Your task to perform on an android device: open wifi settings Image 0: 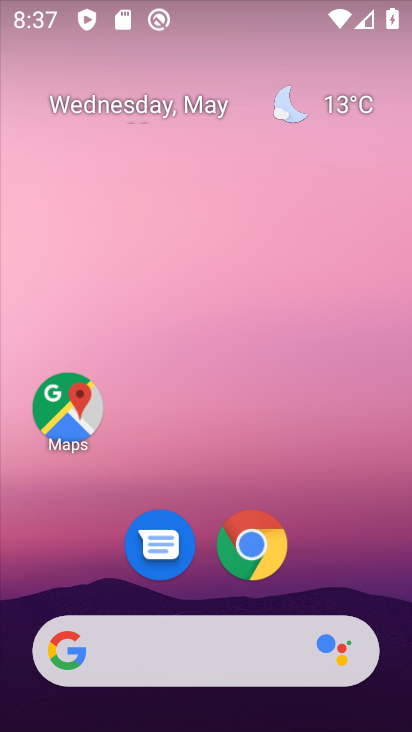
Step 0: drag from (309, 491) to (216, 23)
Your task to perform on an android device: open wifi settings Image 1: 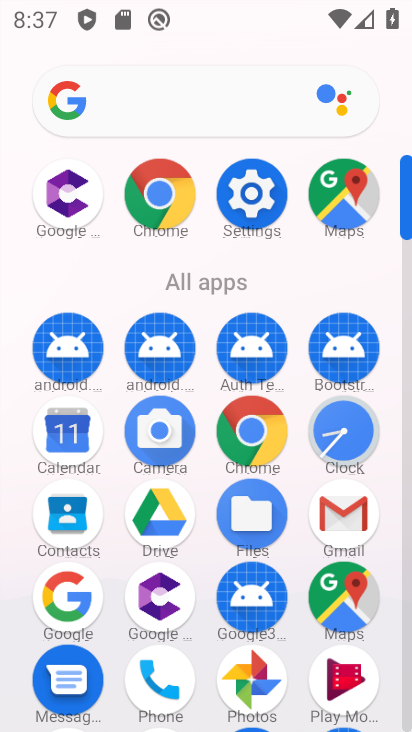
Step 1: drag from (3, 583) to (3, 314)
Your task to perform on an android device: open wifi settings Image 2: 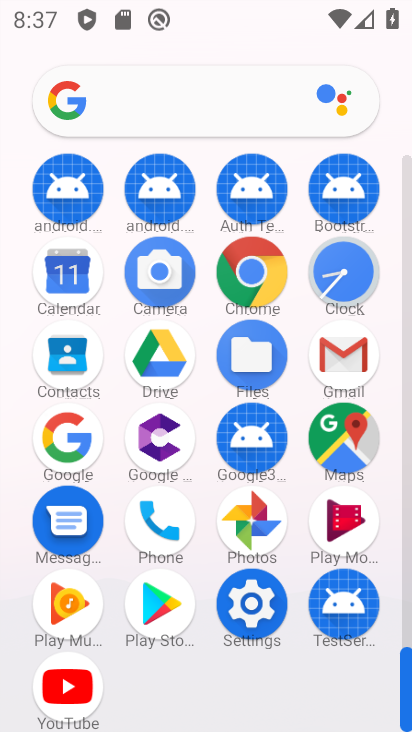
Step 2: click (254, 604)
Your task to perform on an android device: open wifi settings Image 3: 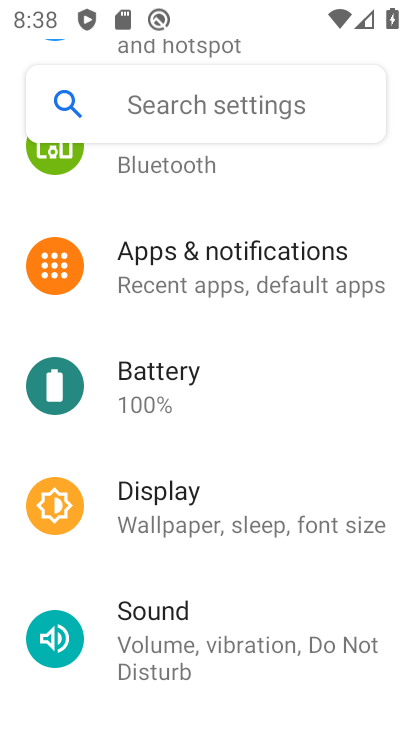
Step 3: drag from (287, 254) to (261, 626)
Your task to perform on an android device: open wifi settings Image 4: 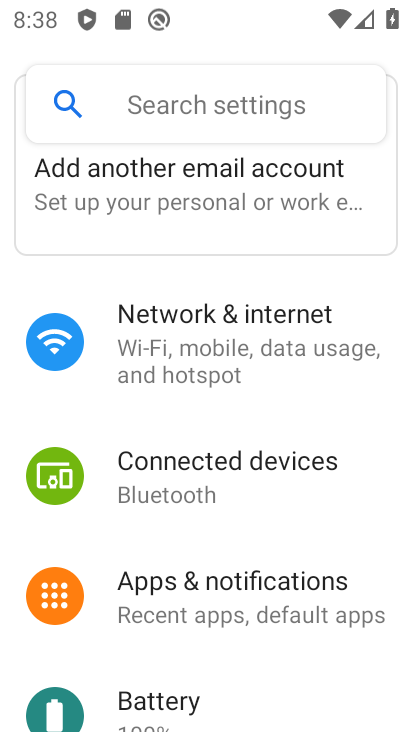
Step 4: click (232, 345)
Your task to perform on an android device: open wifi settings Image 5: 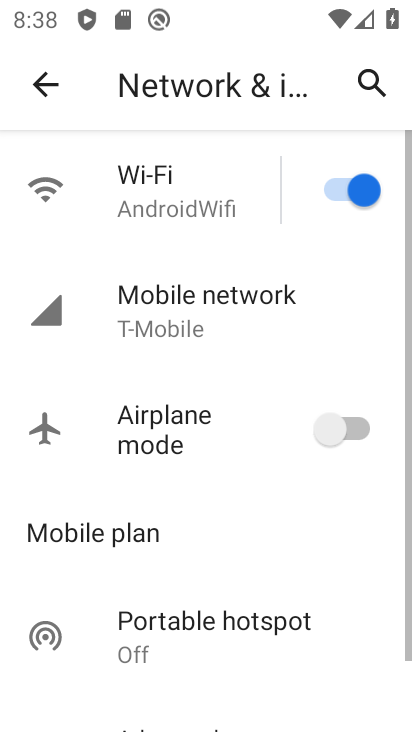
Step 5: click (165, 181)
Your task to perform on an android device: open wifi settings Image 6: 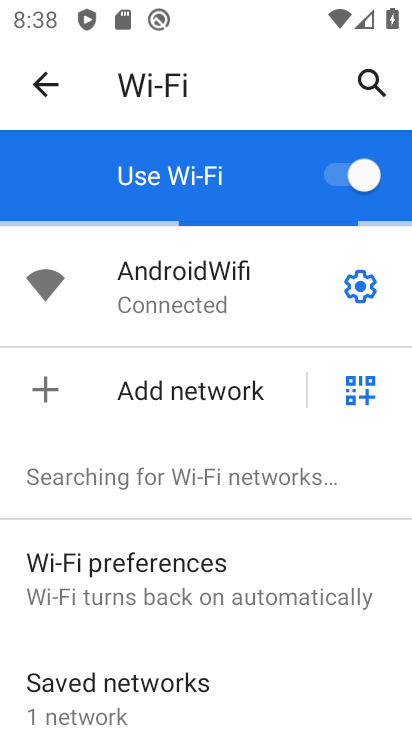
Step 6: task complete